Your task to perform on an android device: What's on my calendar today? Image 0: 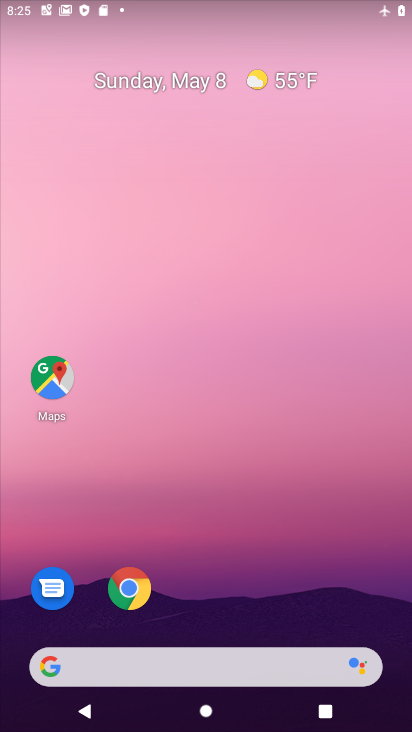
Step 0: drag from (330, 603) to (286, 57)
Your task to perform on an android device: What's on my calendar today? Image 1: 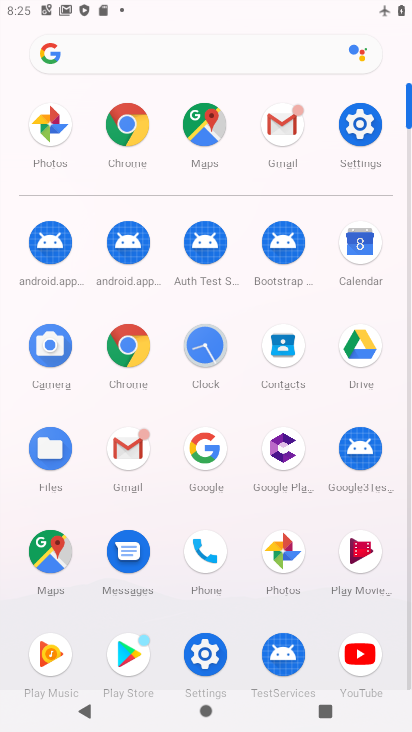
Step 1: click (369, 244)
Your task to perform on an android device: What's on my calendar today? Image 2: 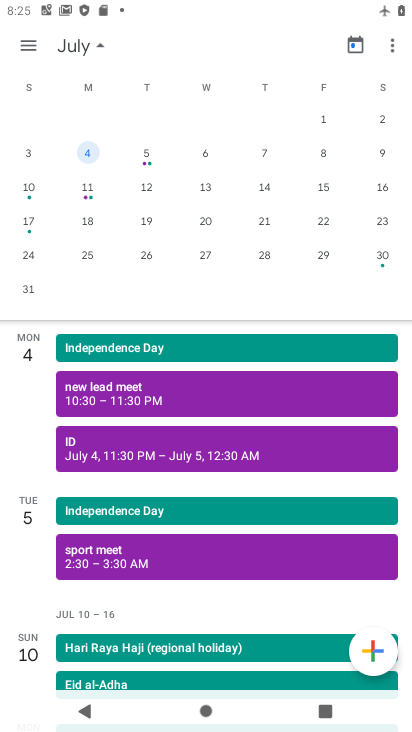
Step 2: click (24, 49)
Your task to perform on an android device: What's on my calendar today? Image 3: 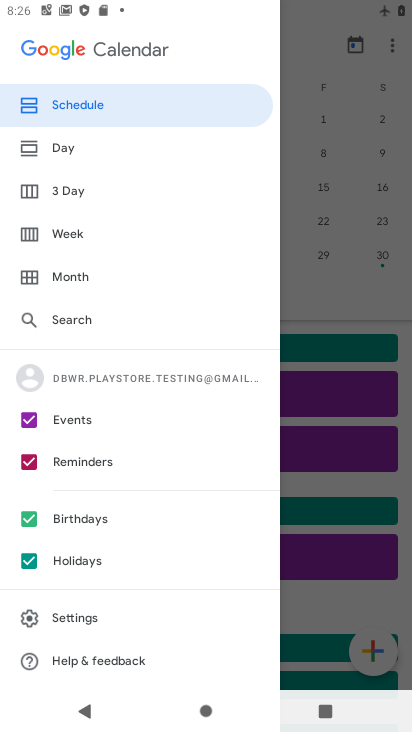
Step 3: click (75, 121)
Your task to perform on an android device: What's on my calendar today? Image 4: 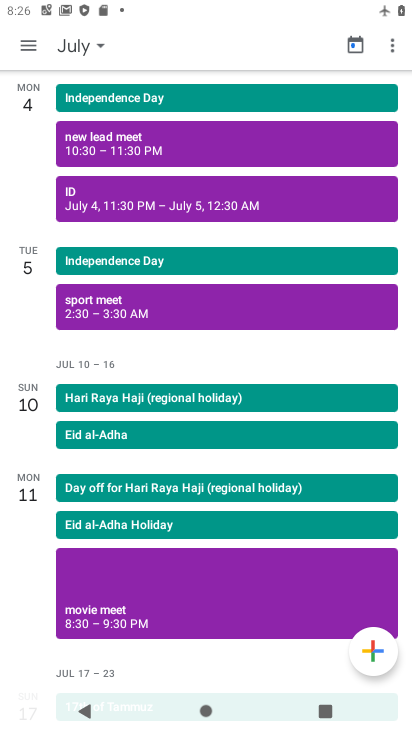
Step 4: task complete